Your task to perform on an android device: add a label to a message in the gmail app Image 0: 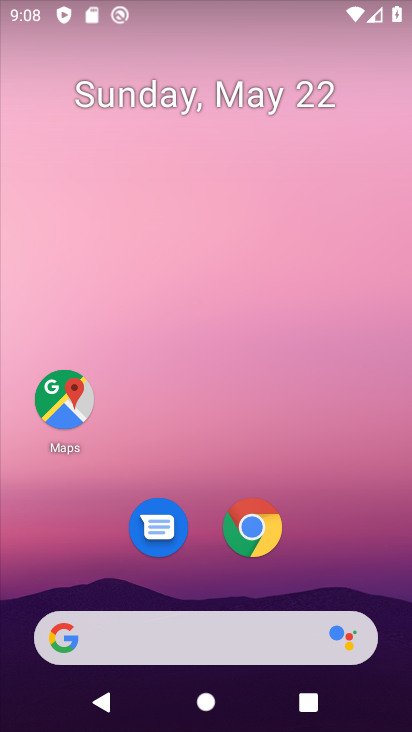
Step 0: drag from (335, 549) to (300, 123)
Your task to perform on an android device: add a label to a message in the gmail app Image 1: 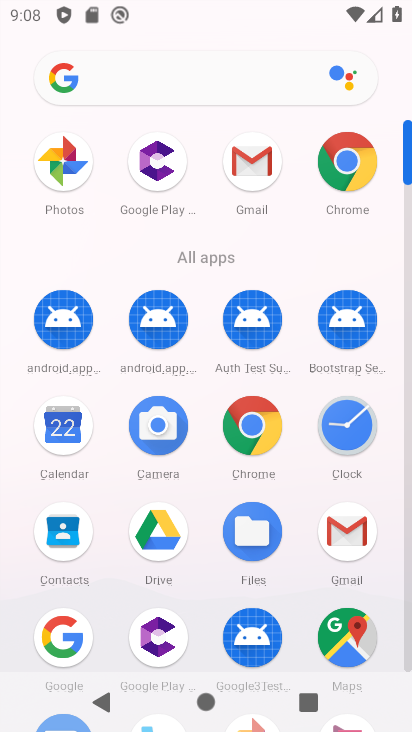
Step 1: click (234, 209)
Your task to perform on an android device: add a label to a message in the gmail app Image 2: 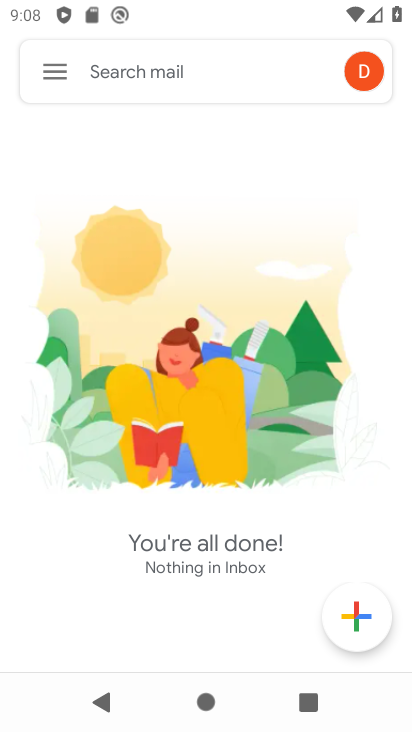
Step 2: click (73, 86)
Your task to perform on an android device: add a label to a message in the gmail app Image 3: 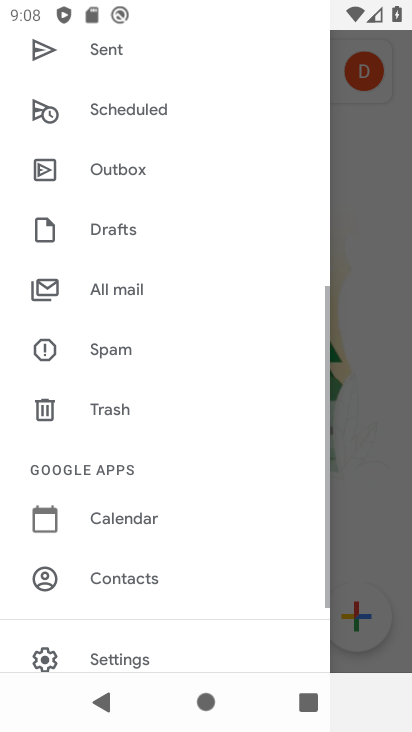
Step 3: click (88, 289)
Your task to perform on an android device: add a label to a message in the gmail app Image 4: 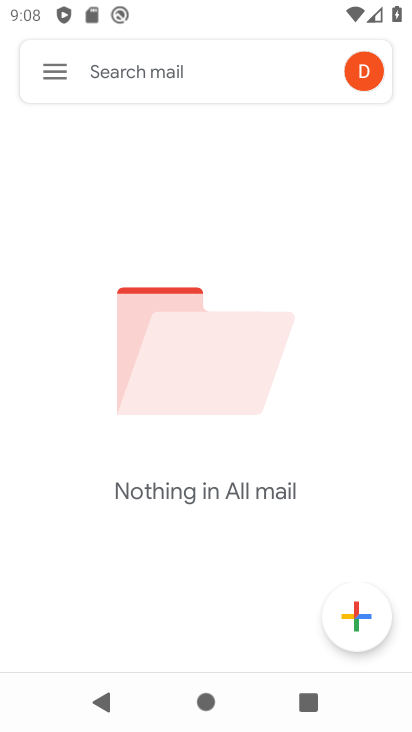
Step 4: task complete